Your task to perform on an android device: Go to Yahoo.com Image 0: 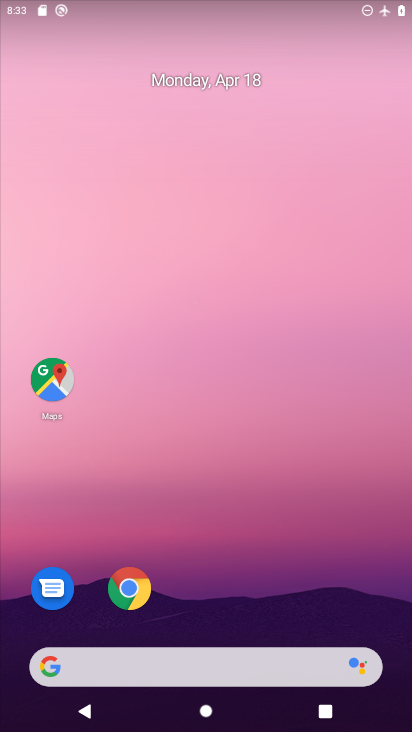
Step 0: click (129, 592)
Your task to perform on an android device: Go to Yahoo.com Image 1: 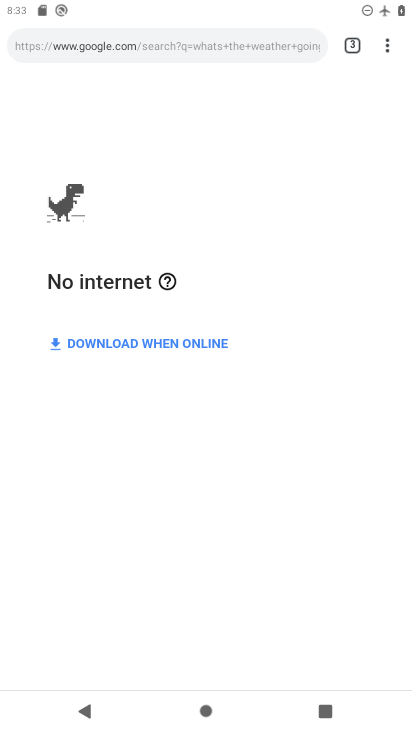
Step 1: click (354, 46)
Your task to perform on an android device: Go to Yahoo.com Image 2: 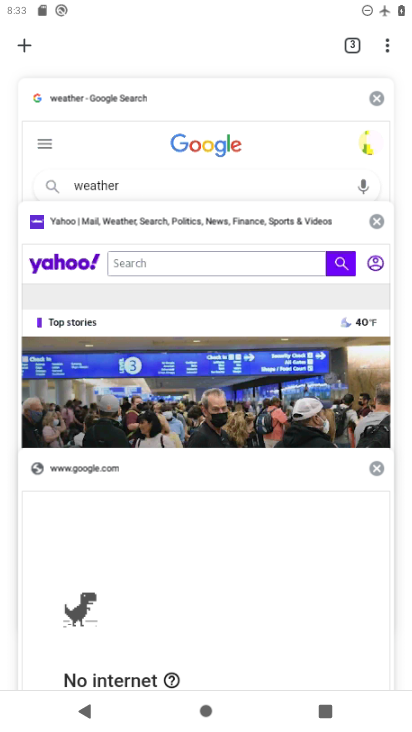
Step 2: click (92, 296)
Your task to perform on an android device: Go to Yahoo.com Image 3: 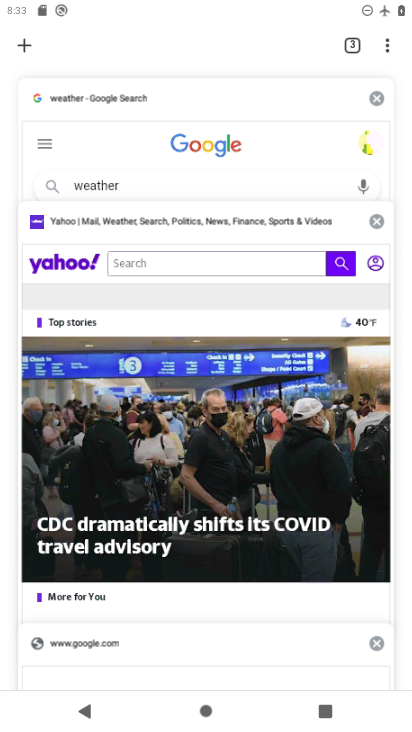
Step 3: click (141, 306)
Your task to perform on an android device: Go to Yahoo.com Image 4: 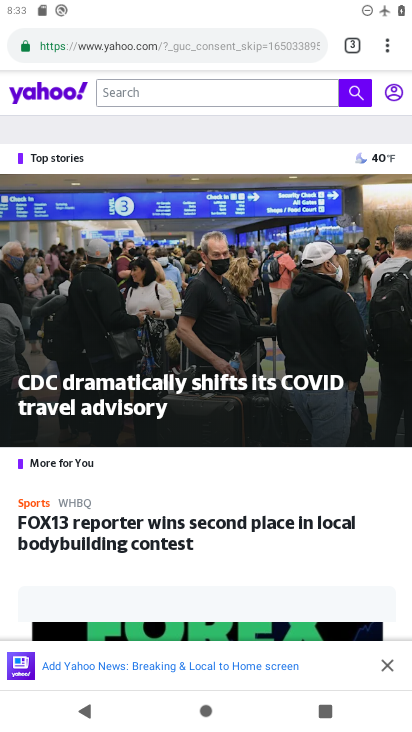
Step 4: task complete